Your task to perform on an android device: move a message to another label in the gmail app Image 0: 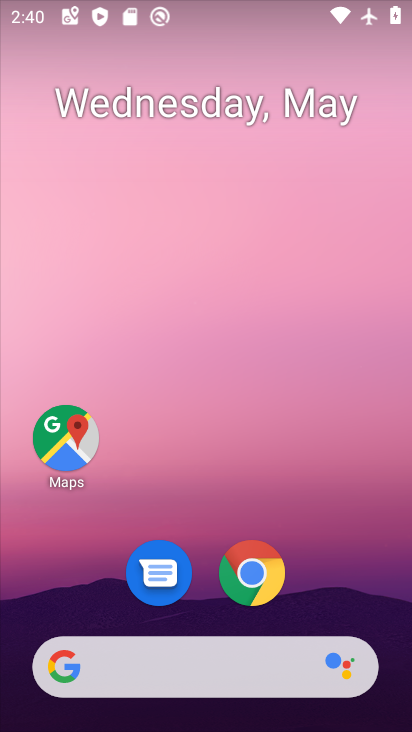
Step 0: drag from (344, 596) to (310, 10)
Your task to perform on an android device: move a message to another label in the gmail app Image 1: 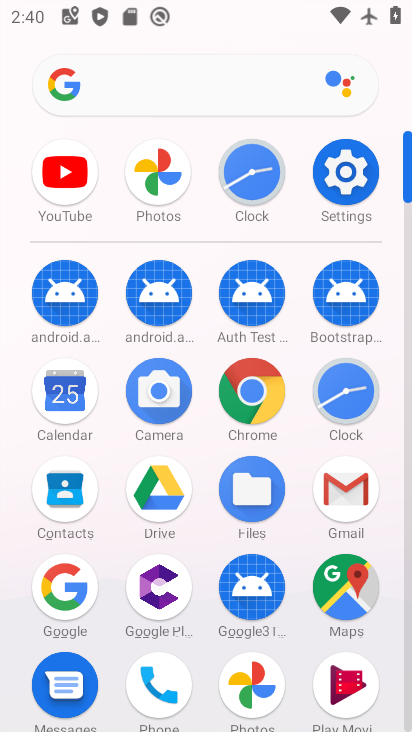
Step 1: click (346, 484)
Your task to perform on an android device: move a message to another label in the gmail app Image 2: 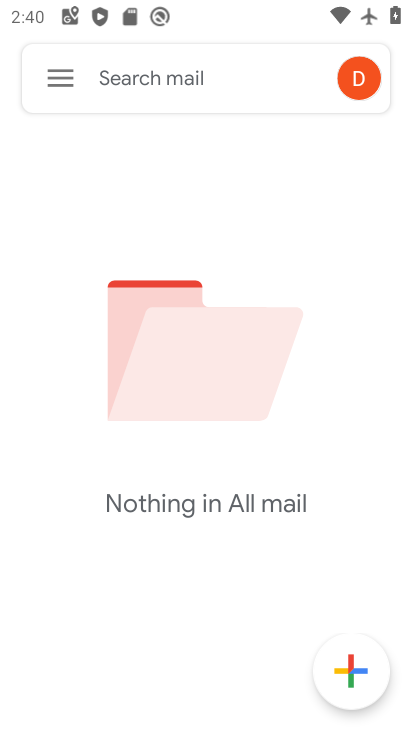
Step 2: click (54, 82)
Your task to perform on an android device: move a message to another label in the gmail app Image 3: 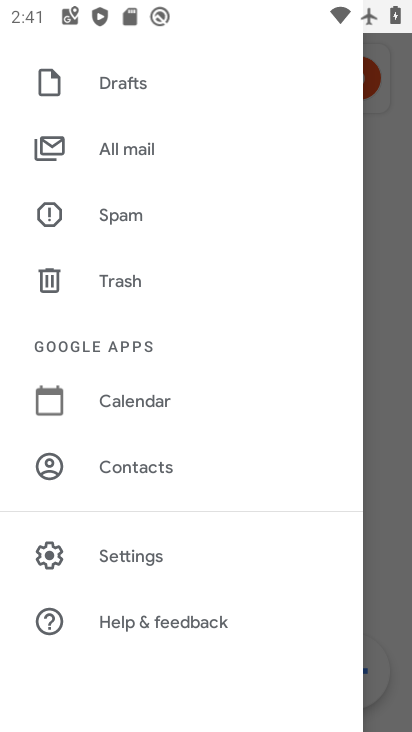
Step 3: click (125, 159)
Your task to perform on an android device: move a message to another label in the gmail app Image 4: 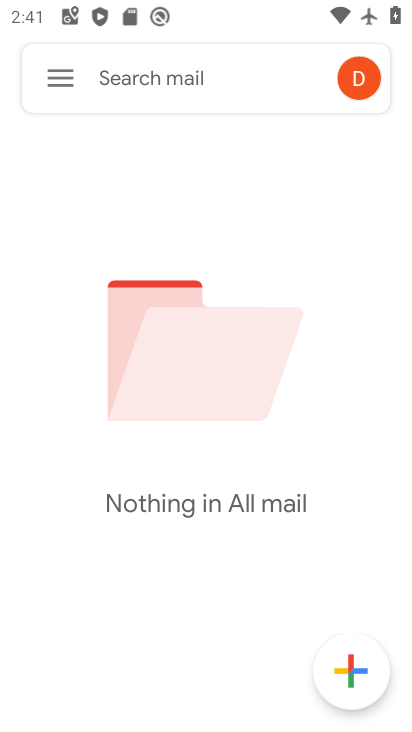
Step 4: task complete